Your task to perform on an android device: set default search engine in the chrome app Image 0: 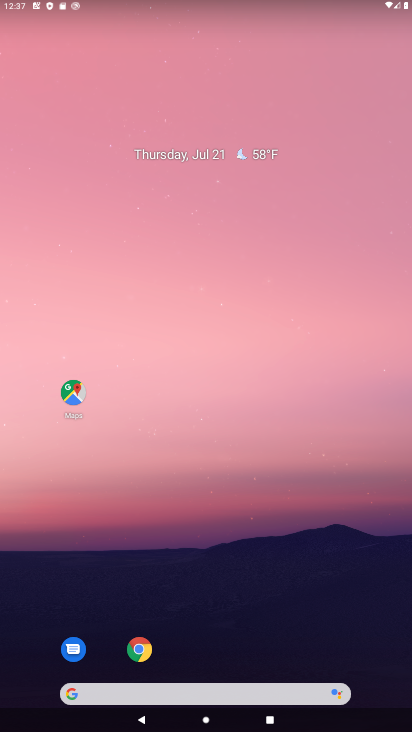
Step 0: click (134, 648)
Your task to perform on an android device: set default search engine in the chrome app Image 1: 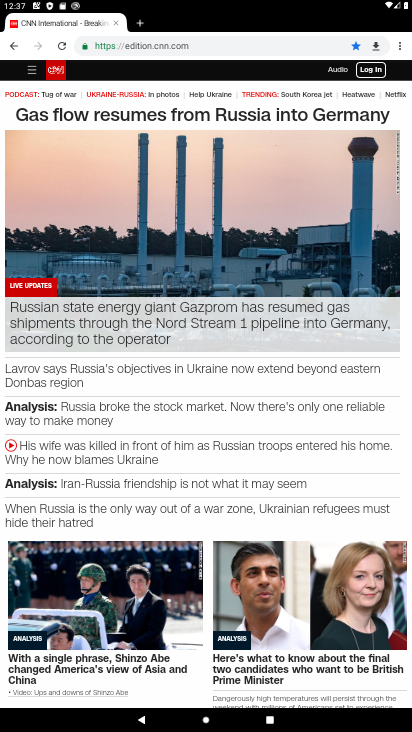
Step 1: click (400, 49)
Your task to perform on an android device: set default search engine in the chrome app Image 2: 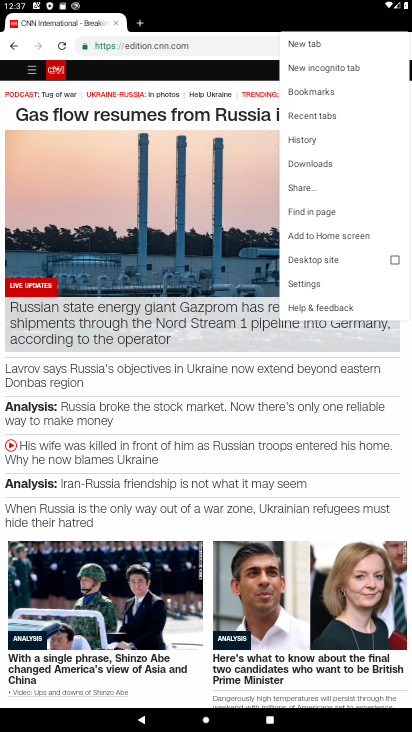
Step 2: click (304, 283)
Your task to perform on an android device: set default search engine in the chrome app Image 3: 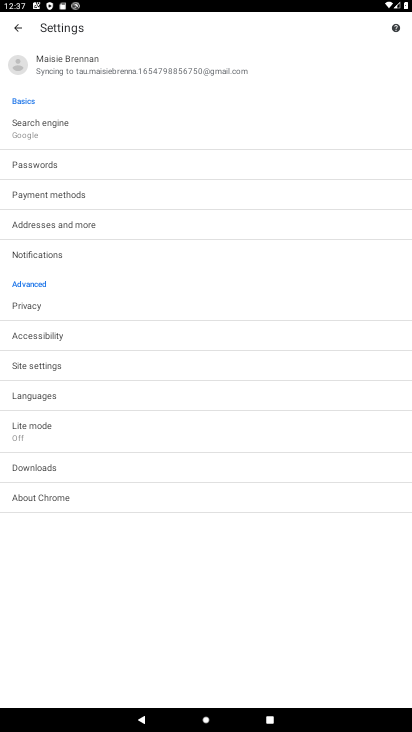
Step 3: click (30, 127)
Your task to perform on an android device: set default search engine in the chrome app Image 4: 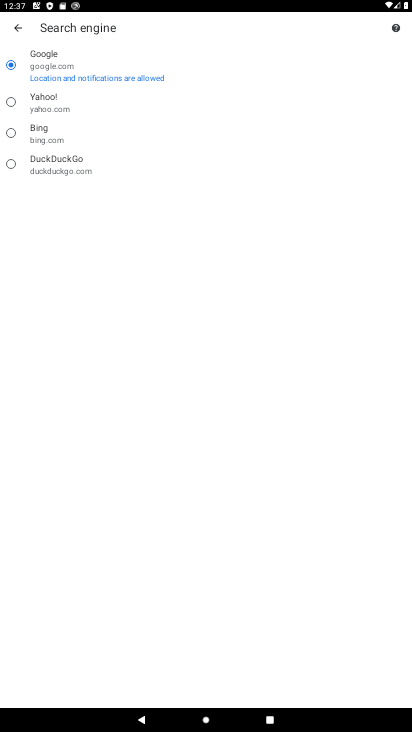
Step 4: click (11, 104)
Your task to perform on an android device: set default search engine in the chrome app Image 5: 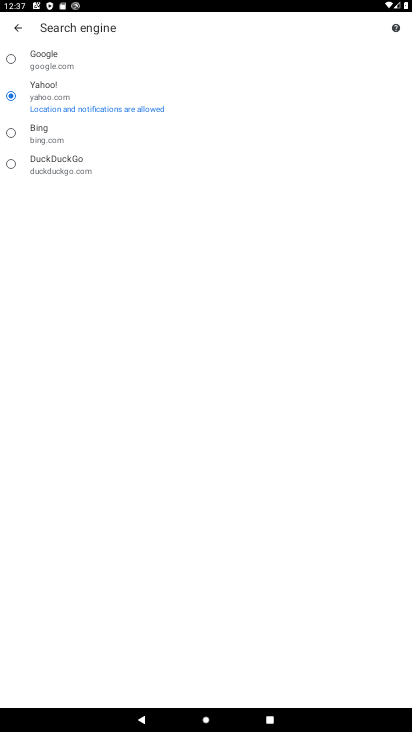
Step 5: task complete